Your task to perform on an android device: change the upload size in google photos Image 0: 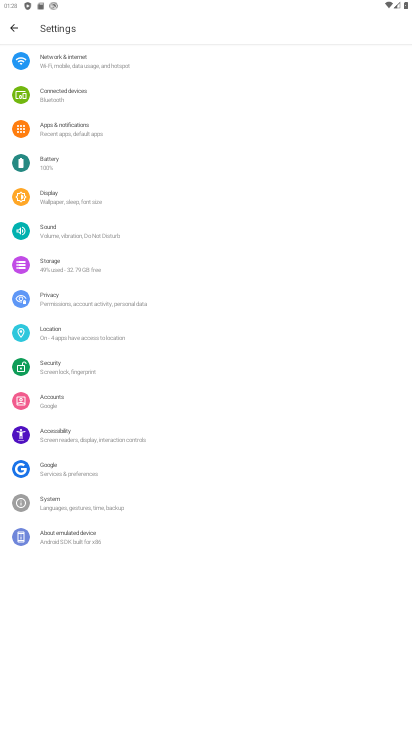
Step 0: press home button
Your task to perform on an android device: change the upload size in google photos Image 1: 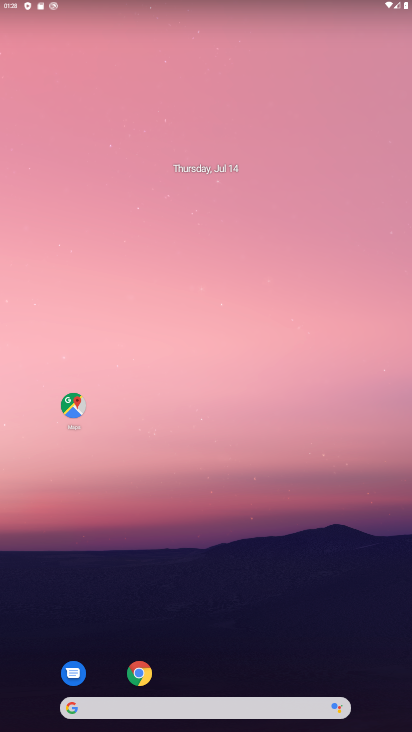
Step 1: drag from (266, 660) to (22, 261)
Your task to perform on an android device: change the upload size in google photos Image 2: 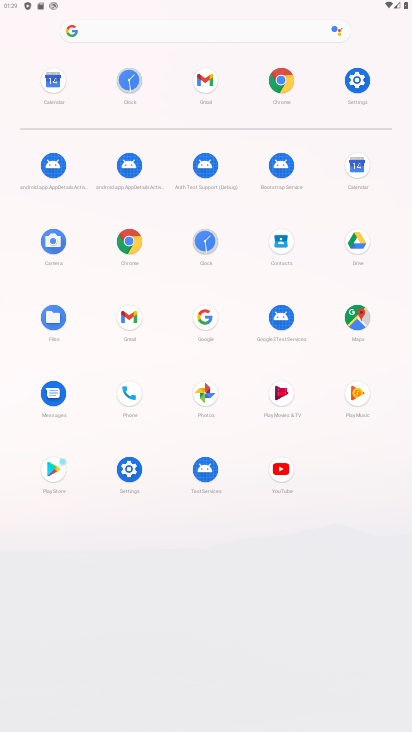
Step 2: click (204, 408)
Your task to perform on an android device: change the upload size in google photos Image 3: 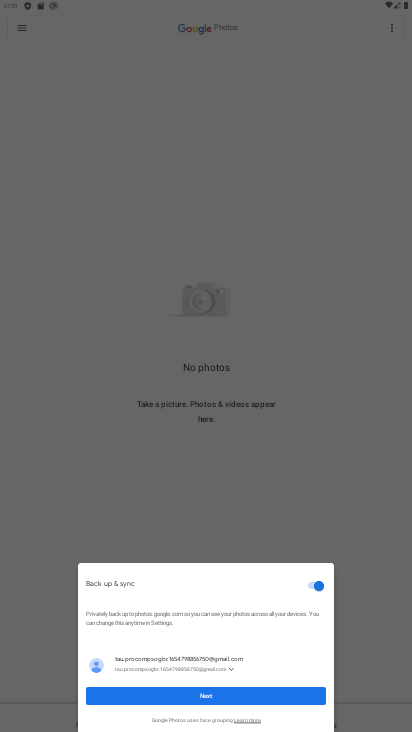
Step 3: click (219, 686)
Your task to perform on an android device: change the upload size in google photos Image 4: 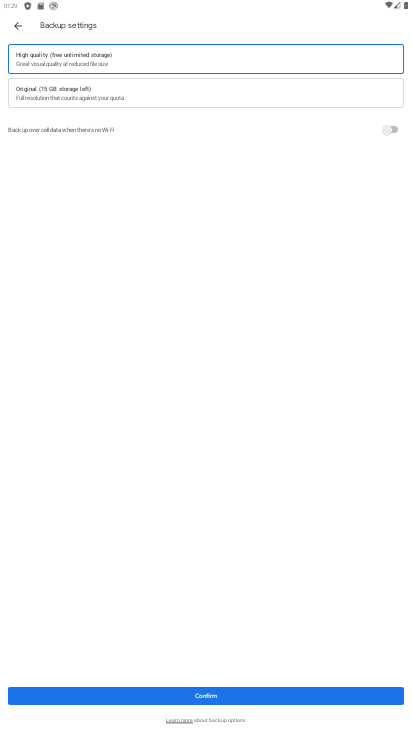
Step 4: click (219, 686)
Your task to perform on an android device: change the upload size in google photos Image 5: 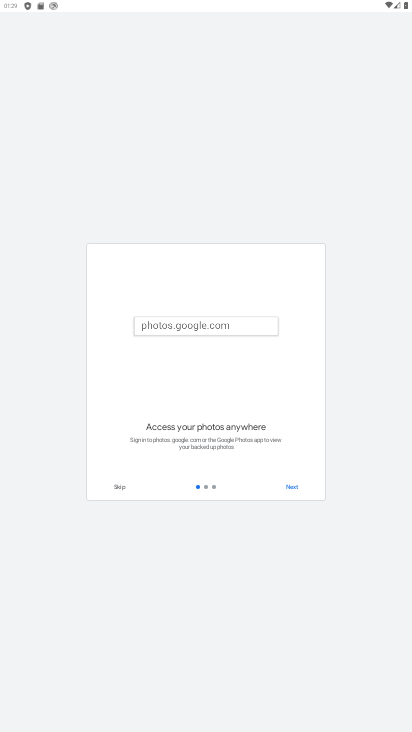
Step 5: click (296, 476)
Your task to perform on an android device: change the upload size in google photos Image 6: 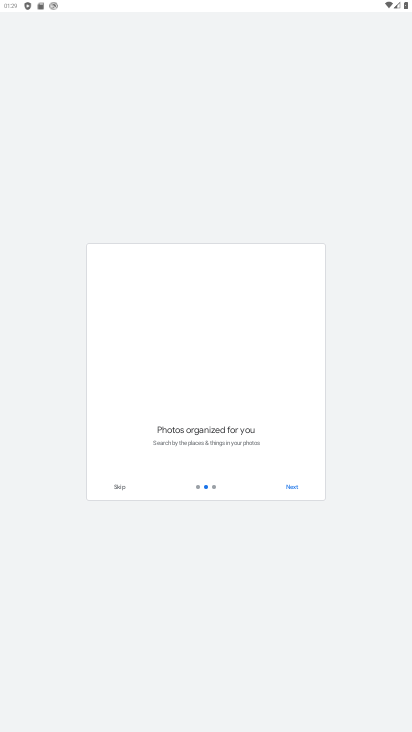
Step 6: click (296, 476)
Your task to perform on an android device: change the upload size in google photos Image 7: 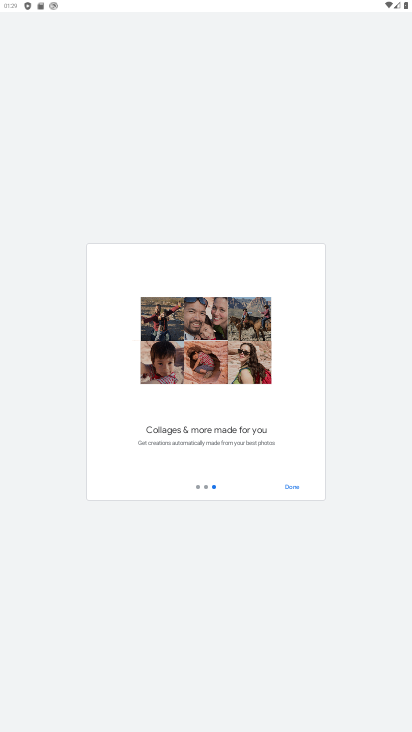
Step 7: click (296, 485)
Your task to perform on an android device: change the upload size in google photos Image 8: 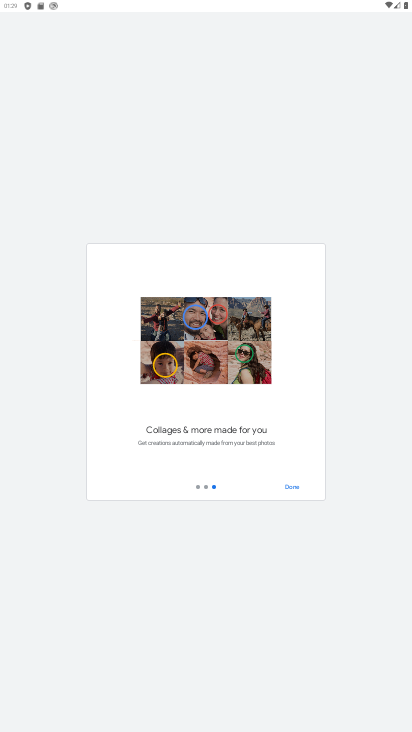
Step 8: click (296, 485)
Your task to perform on an android device: change the upload size in google photos Image 9: 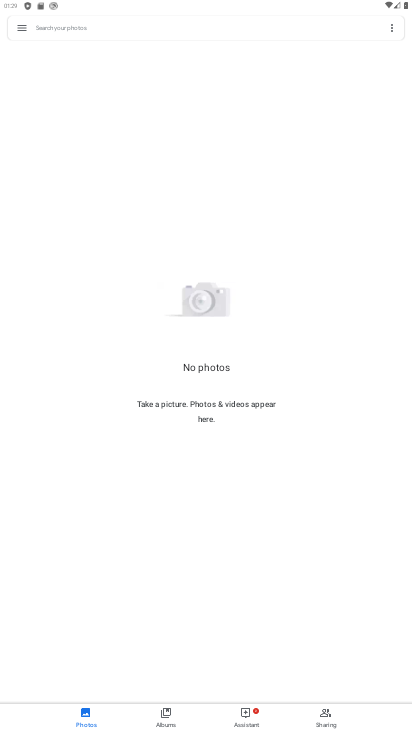
Step 9: task complete